Your task to perform on an android device: add a contact Image 0: 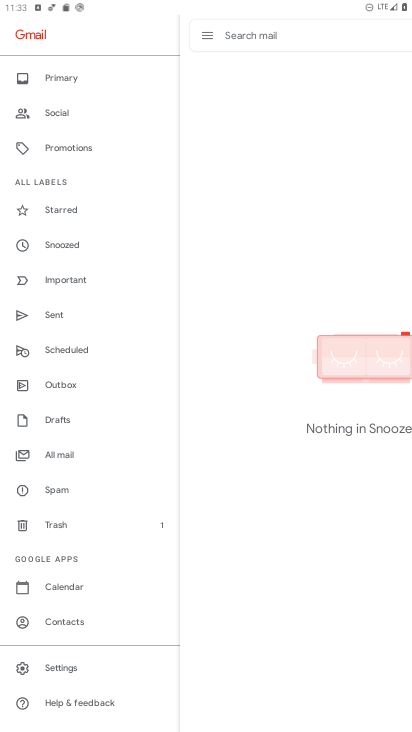
Step 0: press home button
Your task to perform on an android device: add a contact Image 1: 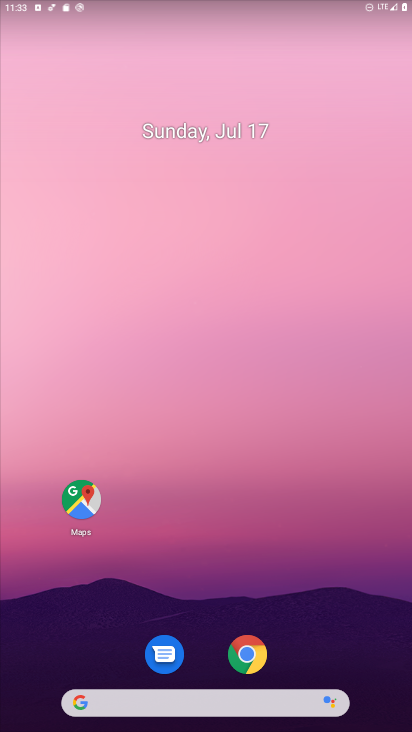
Step 1: drag from (196, 612) to (220, 221)
Your task to perform on an android device: add a contact Image 2: 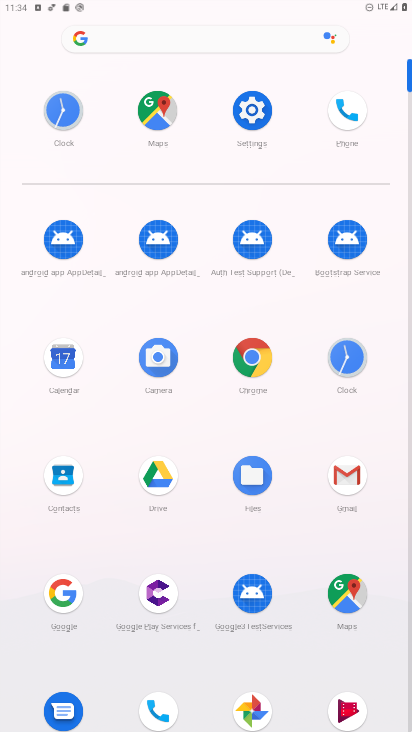
Step 2: click (71, 479)
Your task to perform on an android device: add a contact Image 3: 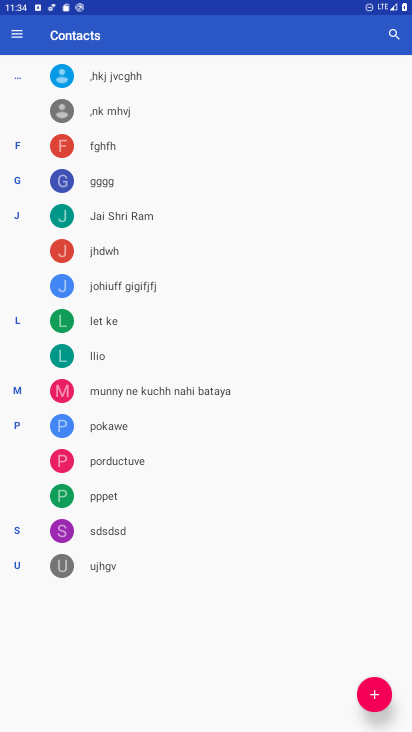
Step 3: click (380, 696)
Your task to perform on an android device: add a contact Image 4: 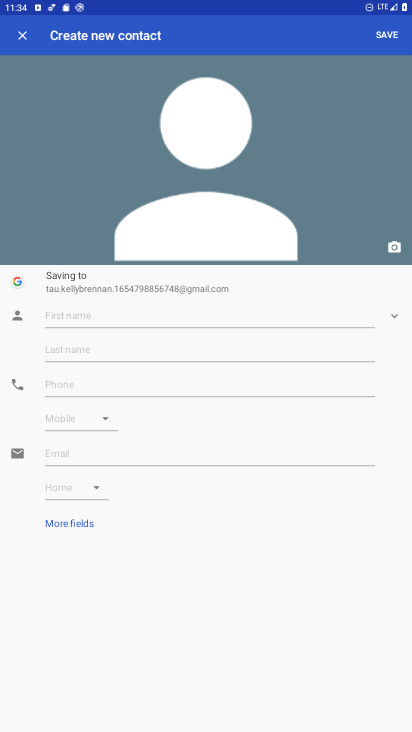
Step 4: click (106, 309)
Your task to perform on an android device: add a contact Image 5: 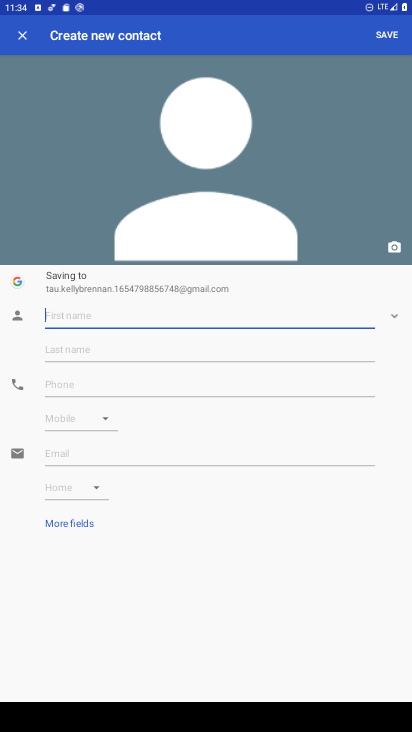
Step 5: type "gnghjghj"
Your task to perform on an android device: add a contact Image 6: 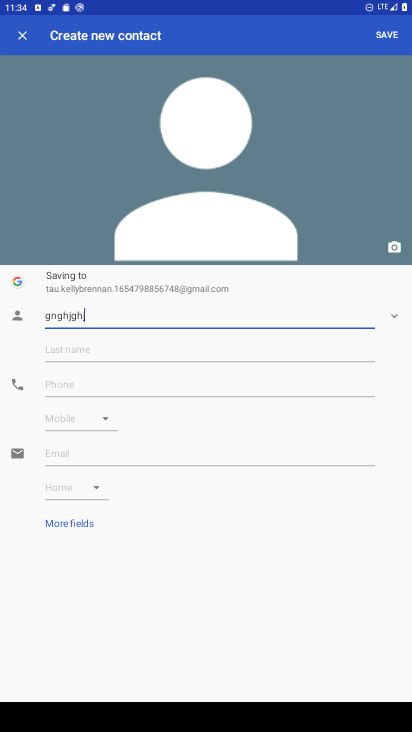
Step 6: click (93, 382)
Your task to perform on an android device: add a contact Image 7: 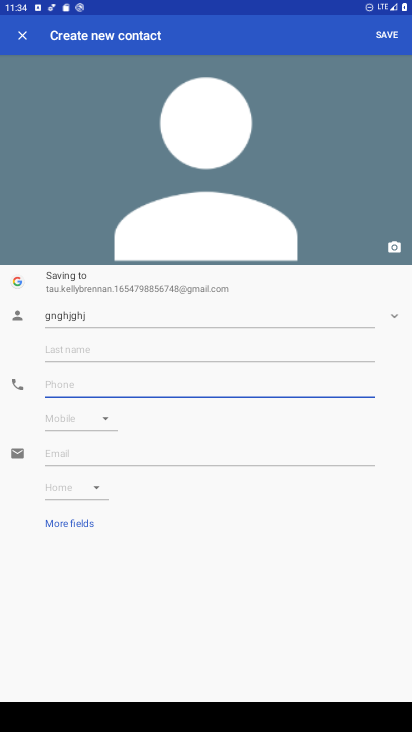
Step 7: type "5646546576"
Your task to perform on an android device: add a contact Image 8: 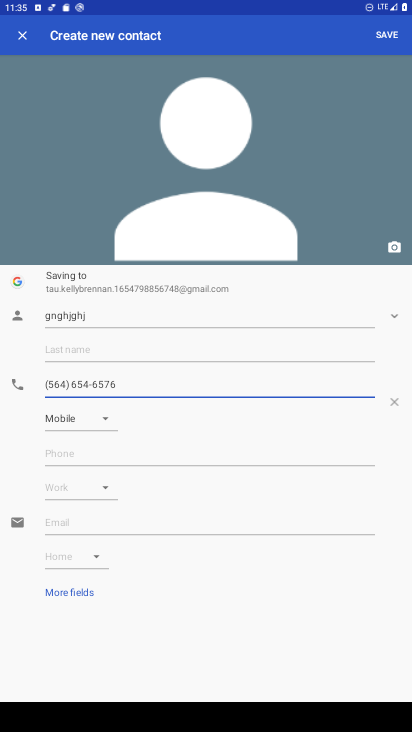
Step 8: click (385, 40)
Your task to perform on an android device: add a contact Image 9: 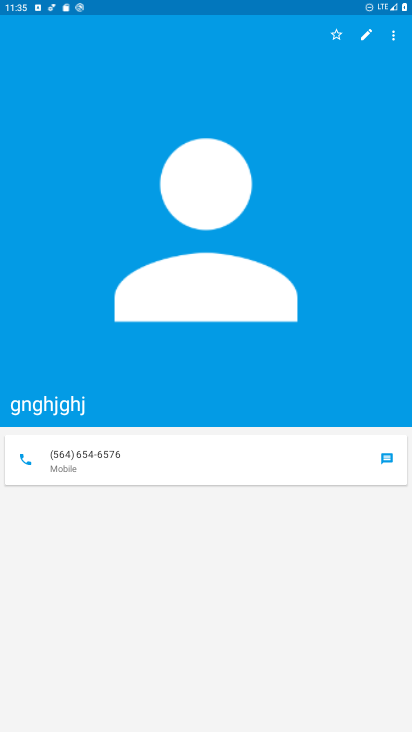
Step 9: task complete